Your task to perform on an android device: turn on the 24-hour format for clock Image 0: 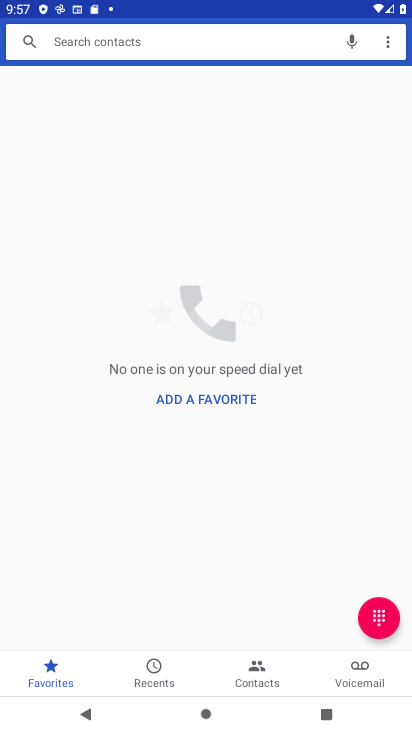
Step 0: press home button
Your task to perform on an android device: turn on the 24-hour format for clock Image 1: 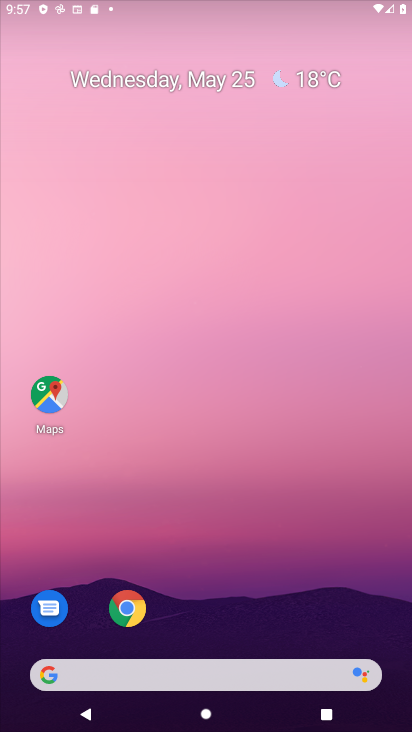
Step 1: drag from (300, 373) to (229, 4)
Your task to perform on an android device: turn on the 24-hour format for clock Image 2: 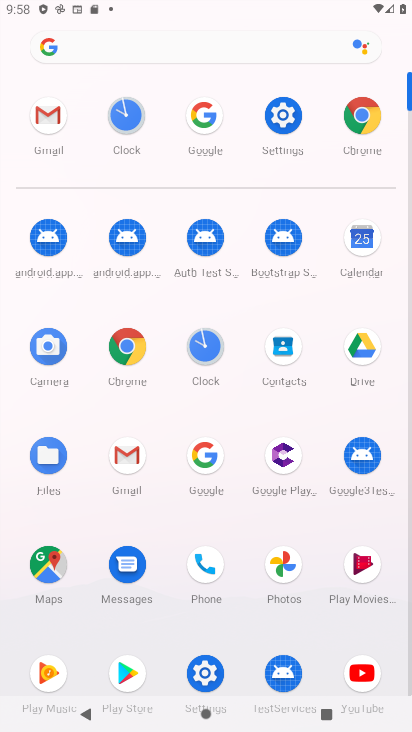
Step 2: click (210, 347)
Your task to perform on an android device: turn on the 24-hour format for clock Image 3: 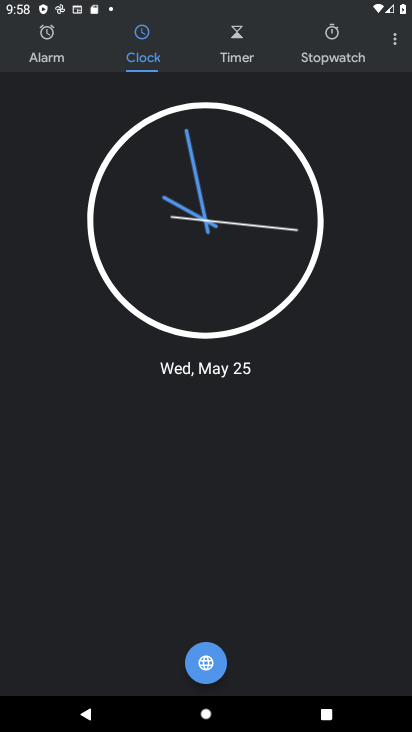
Step 3: click (384, 52)
Your task to perform on an android device: turn on the 24-hour format for clock Image 4: 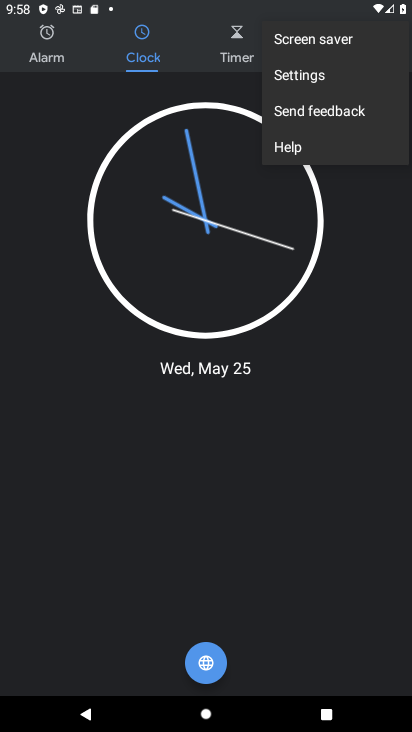
Step 4: click (309, 73)
Your task to perform on an android device: turn on the 24-hour format for clock Image 5: 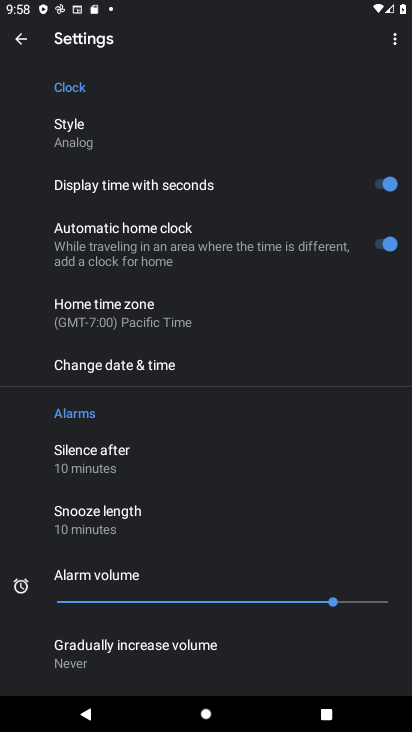
Step 5: drag from (245, 657) to (189, 67)
Your task to perform on an android device: turn on the 24-hour format for clock Image 6: 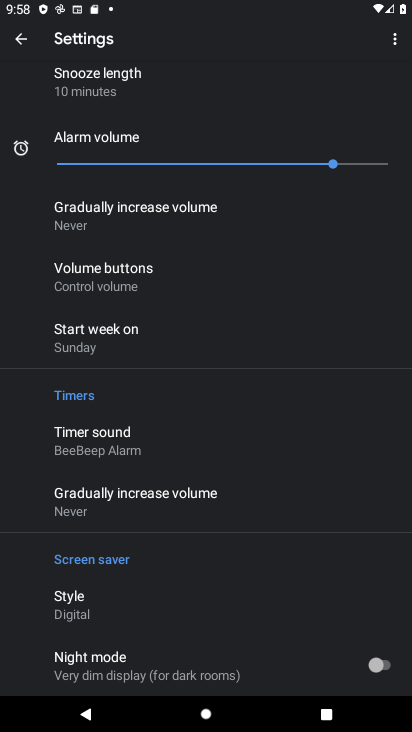
Step 6: drag from (171, 178) to (181, 550)
Your task to perform on an android device: turn on the 24-hour format for clock Image 7: 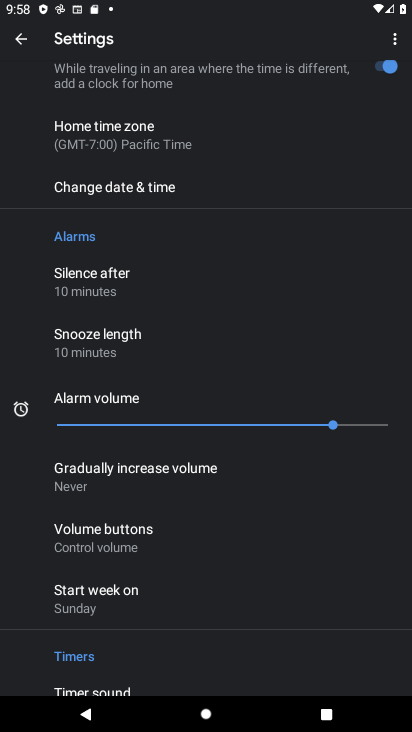
Step 7: click (135, 192)
Your task to perform on an android device: turn on the 24-hour format for clock Image 8: 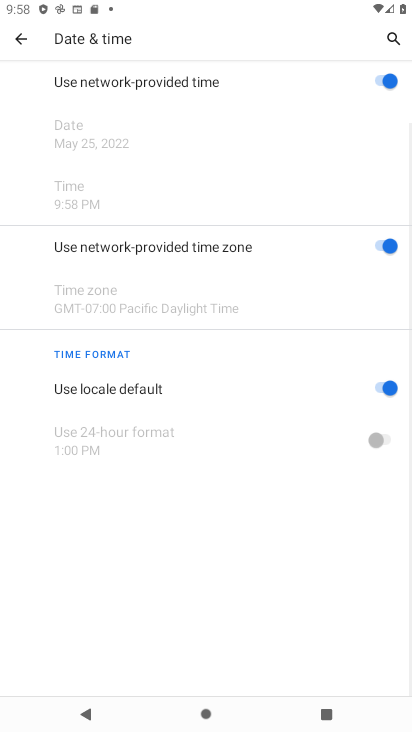
Step 8: click (382, 387)
Your task to perform on an android device: turn on the 24-hour format for clock Image 9: 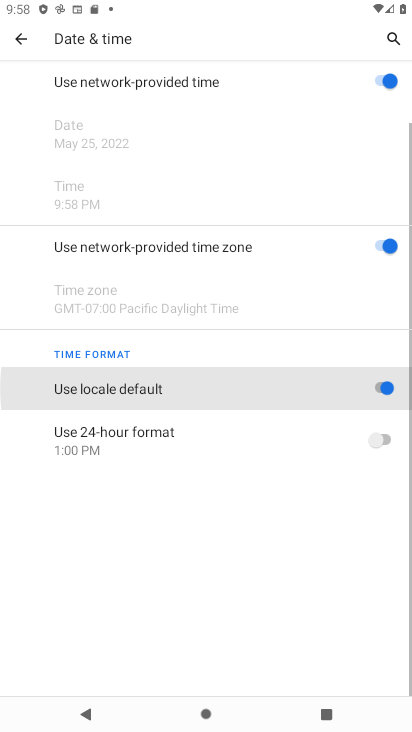
Step 9: click (372, 443)
Your task to perform on an android device: turn on the 24-hour format for clock Image 10: 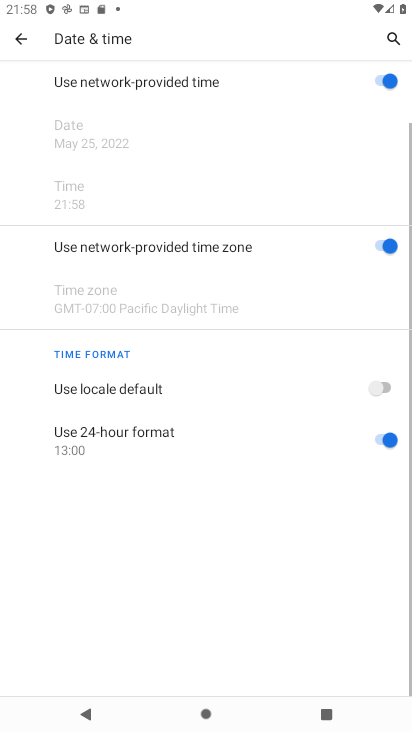
Step 10: task complete